Your task to perform on an android device: toggle improve location accuracy Image 0: 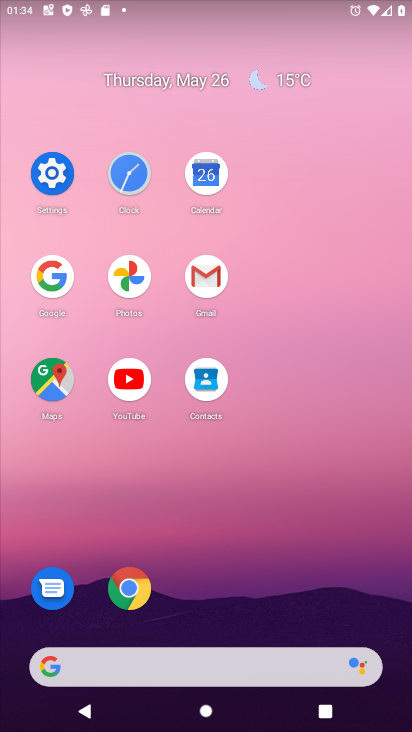
Step 0: click (53, 167)
Your task to perform on an android device: toggle improve location accuracy Image 1: 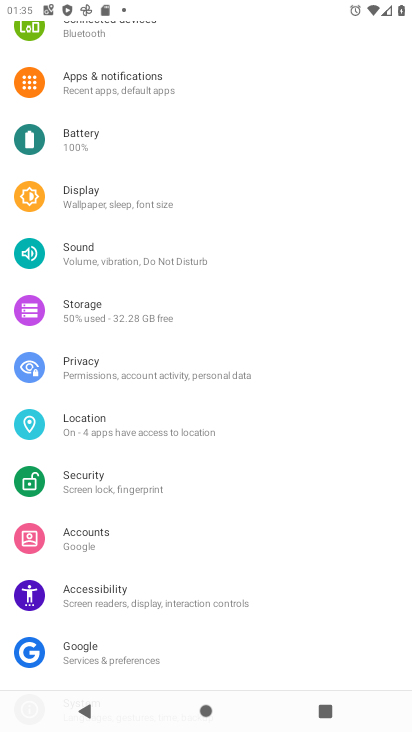
Step 1: click (173, 428)
Your task to perform on an android device: toggle improve location accuracy Image 2: 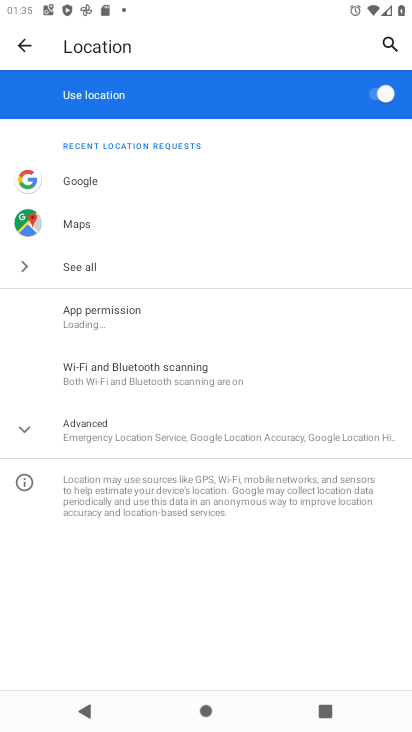
Step 2: click (171, 429)
Your task to perform on an android device: toggle improve location accuracy Image 3: 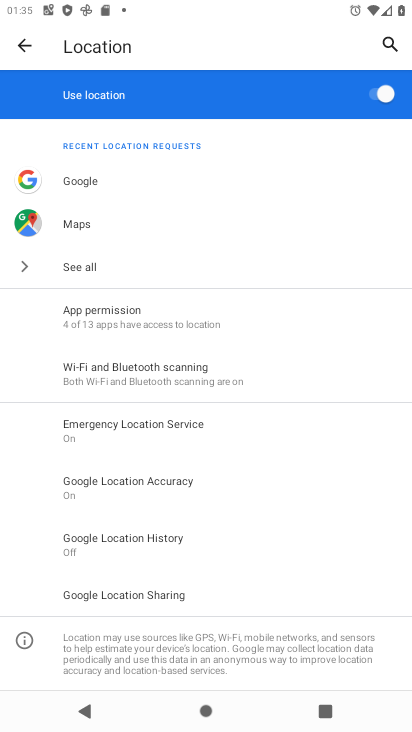
Step 3: click (166, 484)
Your task to perform on an android device: toggle improve location accuracy Image 4: 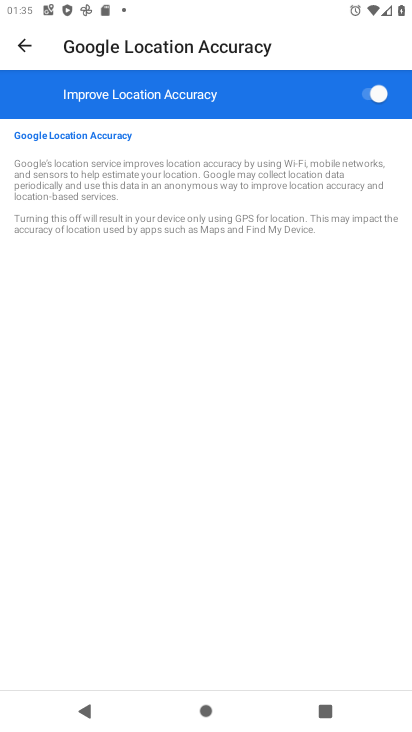
Step 4: click (373, 92)
Your task to perform on an android device: toggle improve location accuracy Image 5: 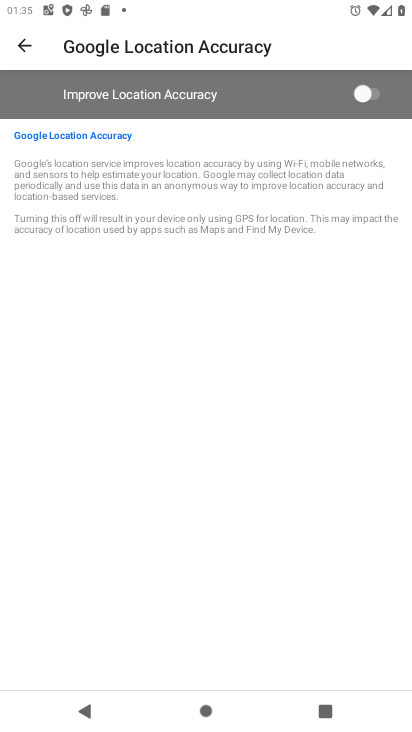
Step 5: task complete